Your task to perform on an android device: Go to battery settings Image 0: 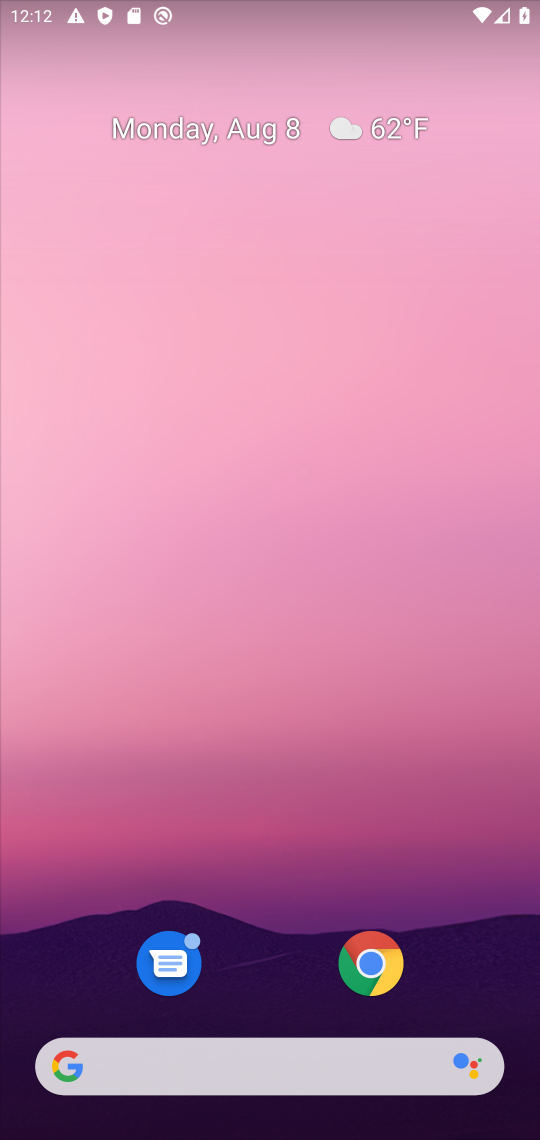
Step 0: drag from (439, 981) to (186, 32)
Your task to perform on an android device: Go to battery settings Image 1: 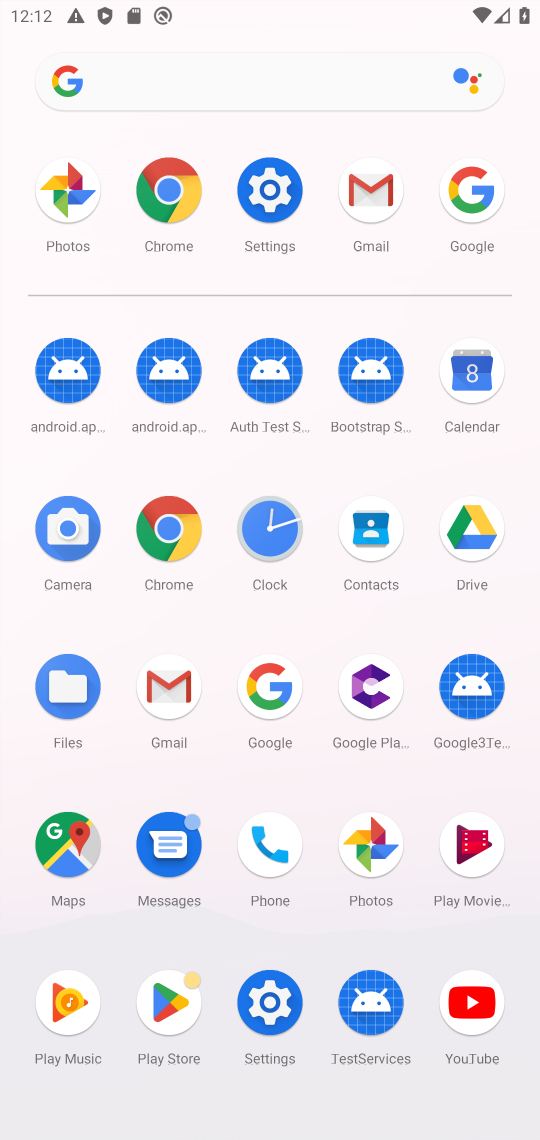
Step 1: click (245, 1017)
Your task to perform on an android device: Go to battery settings Image 2: 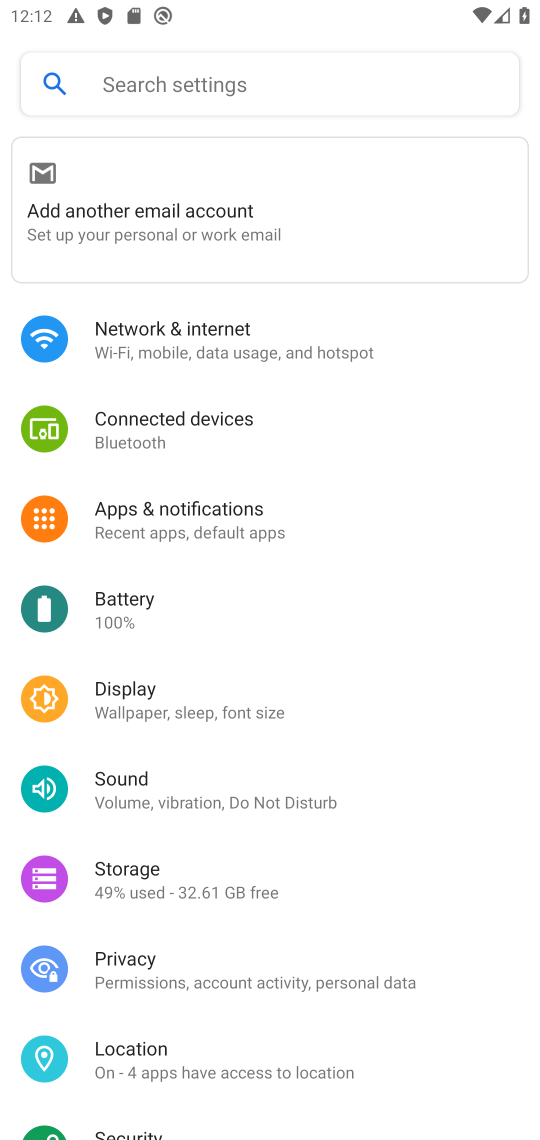
Step 2: click (137, 623)
Your task to perform on an android device: Go to battery settings Image 3: 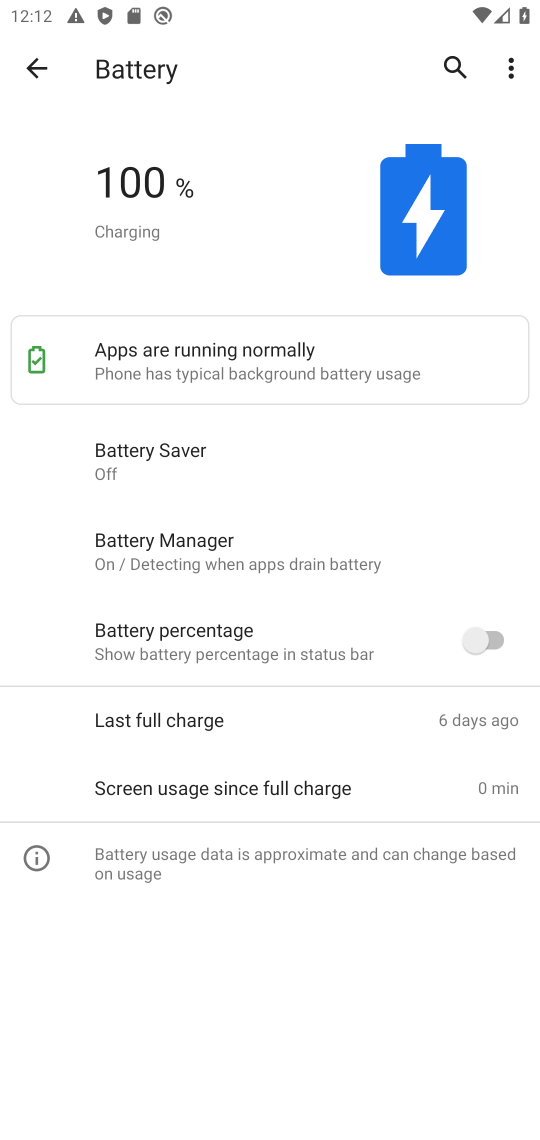
Step 3: task complete